Your task to perform on an android device: Search for Italian restaurants on Maps Image 0: 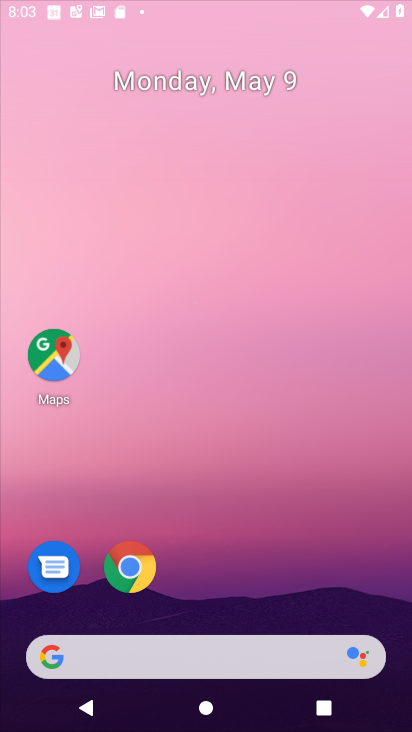
Step 0: click (330, 153)
Your task to perform on an android device: Search for Italian restaurants on Maps Image 1: 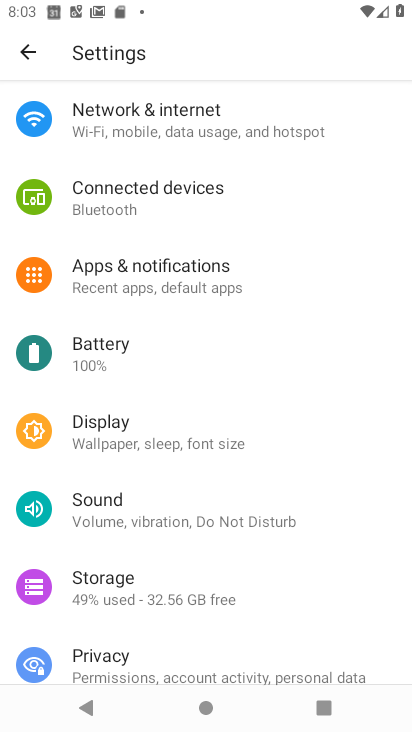
Step 1: press home button
Your task to perform on an android device: Search for Italian restaurants on Maps Image 2: 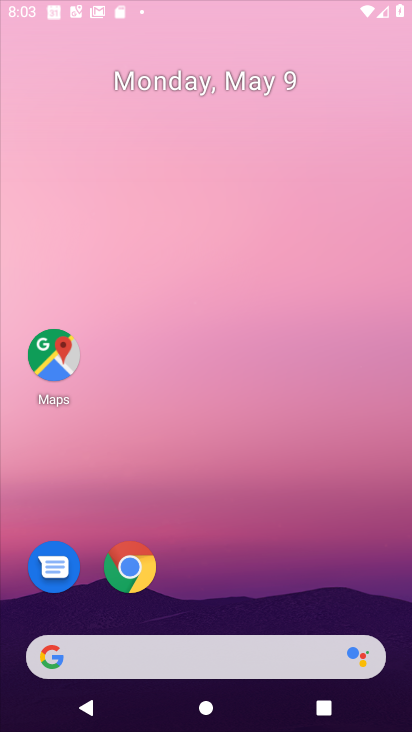
Step 2: drag from (210, 606) to (272, 287)
Your task to perform on an android device: Search for Italian restaurants on Maps Image 3: 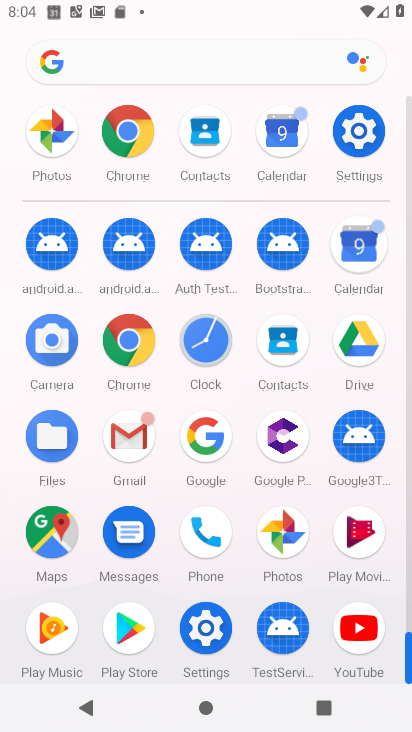
Step 3: click (45, 543)
Your task to perform on an android device: Search for Italian restaurants on Maps Image 4: 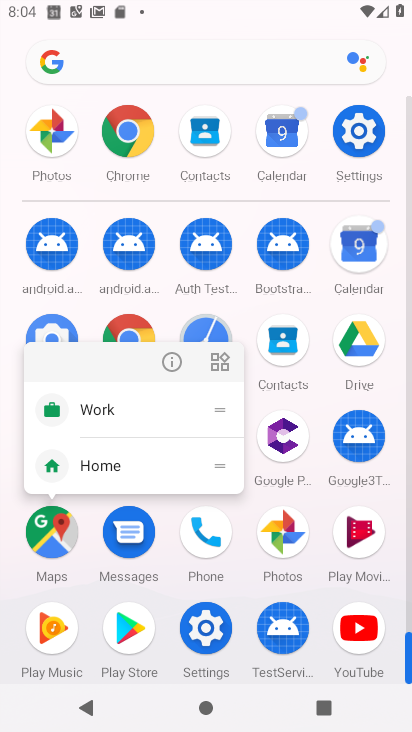
Step 4: click (175, 356)
Your task to perform on an android device: Search for Italian restaurants on Maps Image 5: 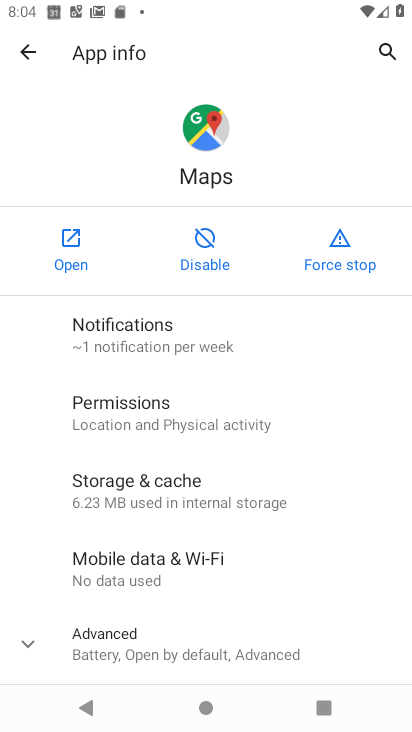
Step 5: click (62, 222)
Your task to perform on an android device: Search for Italian restaurants on Maps Image 6: 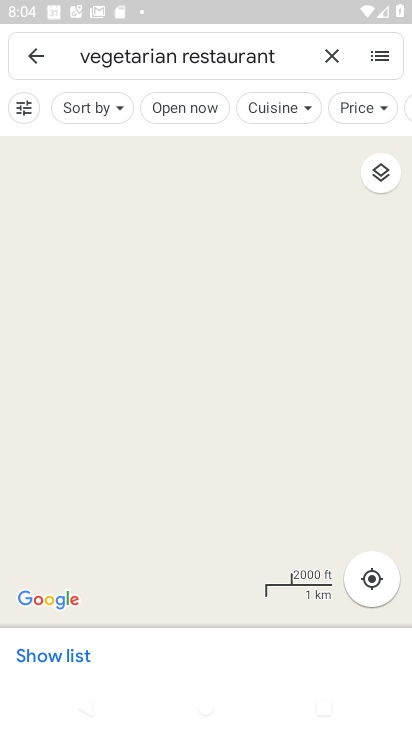
Step 6: click (334, 52)
Your task to perform on an android device: Search for Italian restaurants on Maps Image 7: 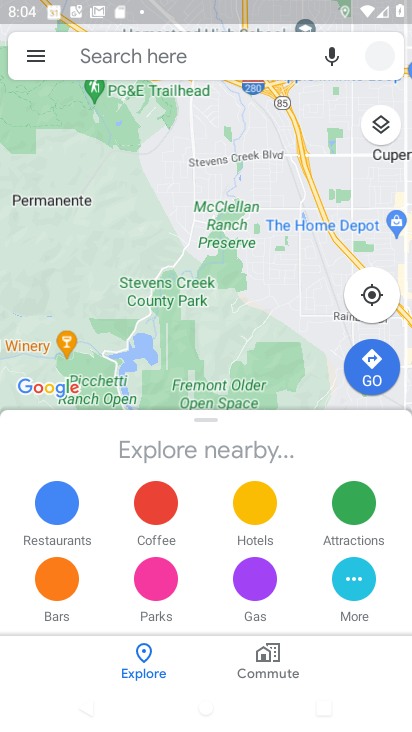
Step 7: click (329, 55)
Your task to perform on an android device: Search for Italian restaurants on Maps Image 8: 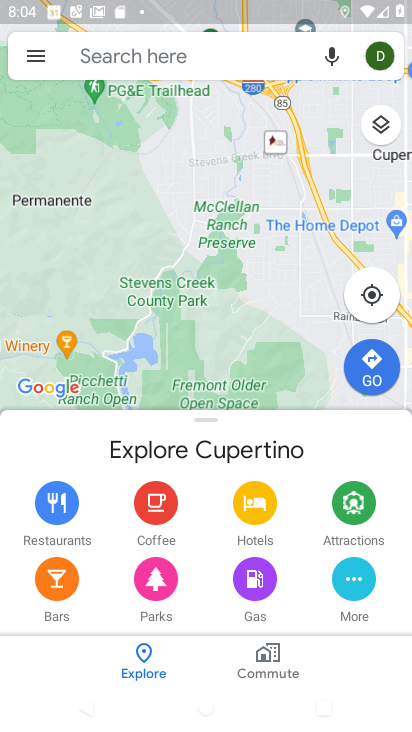
Step 8: click (240, 48)
Your task to perform on an android device: Search for Italian restaurants on Maps Image 9: 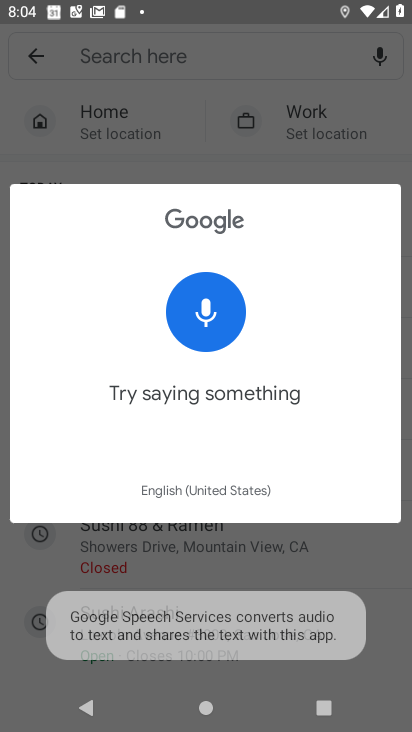
Step 9: click (190, 71)
Your task to perform on an android device: Search for Italian restaurants on Maps Image 10: 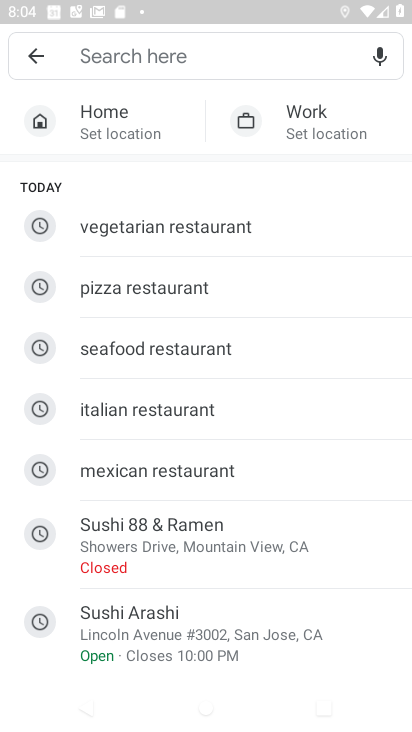
Step 10: click (164, 422)
Your task to perform on an android device: Search for Italian restaurants on Maps Image 11: 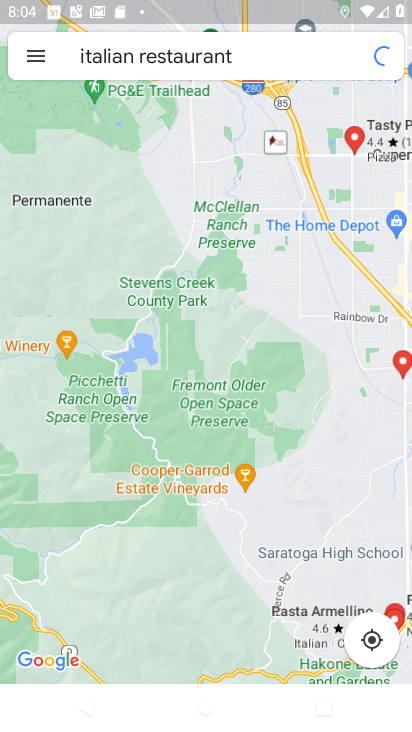
Step 11: task complete